Your task to perform on an android device: Open network settings Image 0: 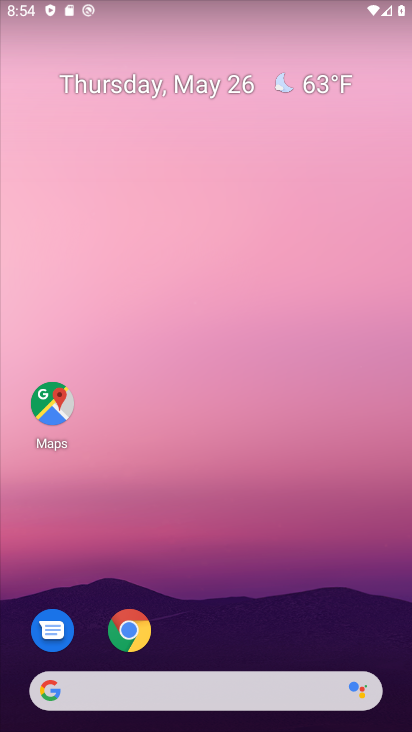
Step 0: drag from (244, 647) to (67, 0)
Your task to perform on an android device: Open network settings Image 1: 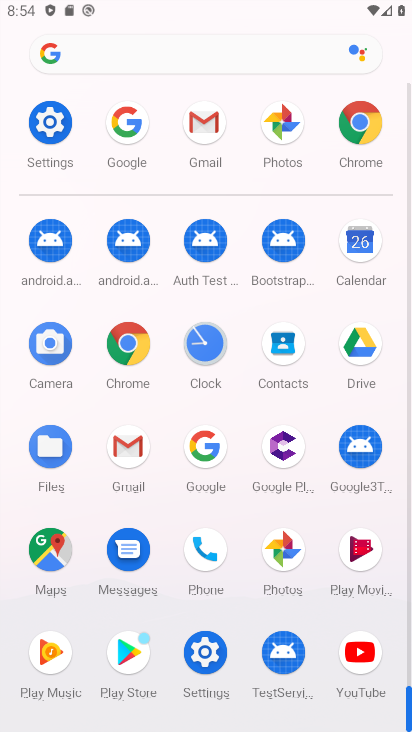
Step 1: click (49, 116)
Your task to perform on an android device: Open network settings Image 2: 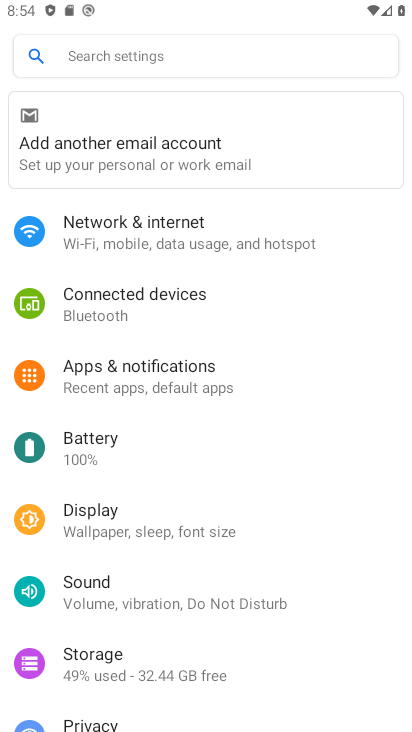
Step 2: click (141, 239)
Your task to perform on an android device: Open network settings Image 3: 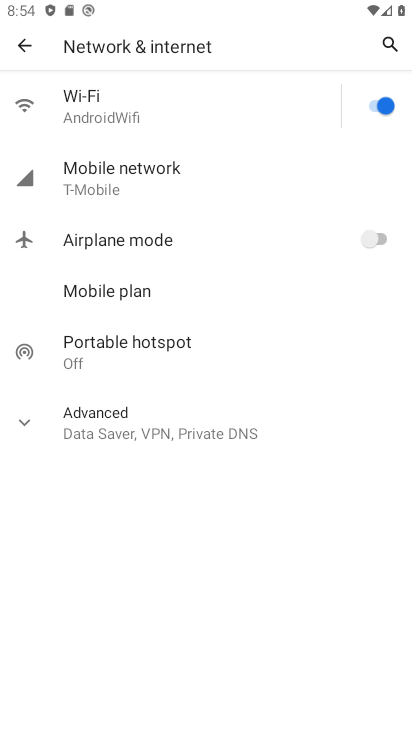
Step 3: task complete